Your task to perform on an android device: Open internet settings Image 0: 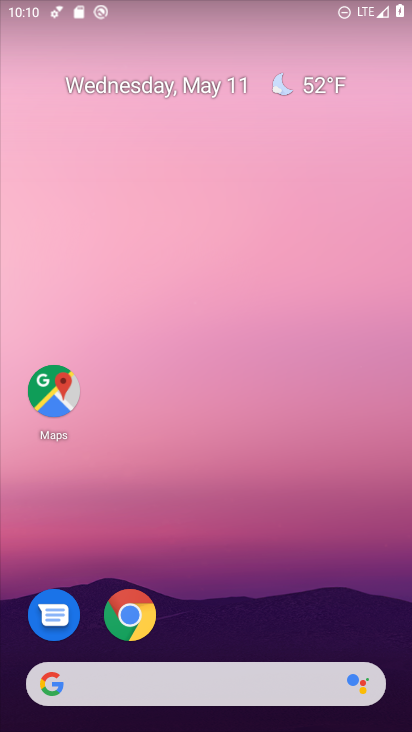
Step 0: drag from (246, 623) to (185, 95)
Your task to perform on an android device: Open internet settings Image 1: 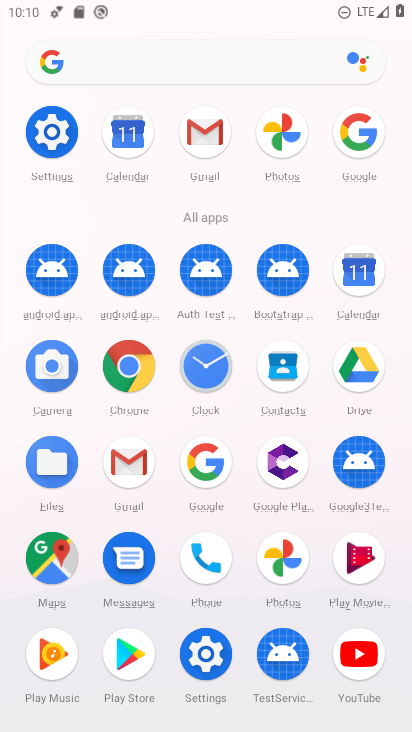
Step 1: click (53, 129)
Your task to perform on an android device: Open internet settings Image 2: 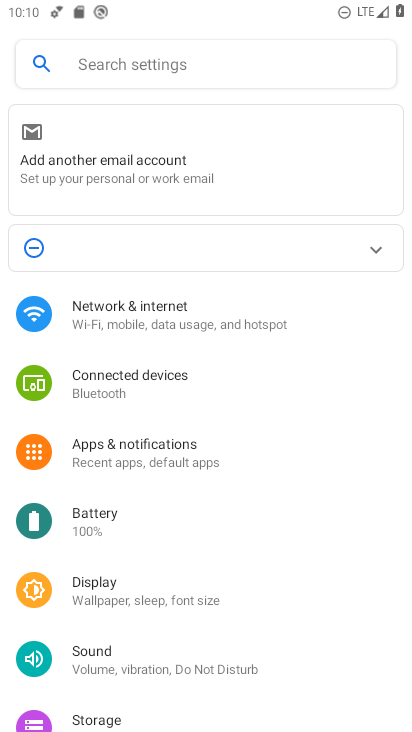
Step 2: click (149, 313)
Your task to perform on an android device: Open internet settings Image 3: 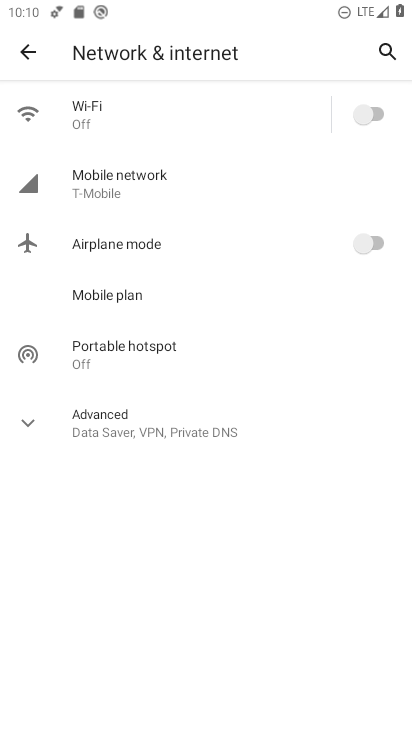
Step 3: task complete